Your task to perform on an android device: Open Wikipedia Image 0: 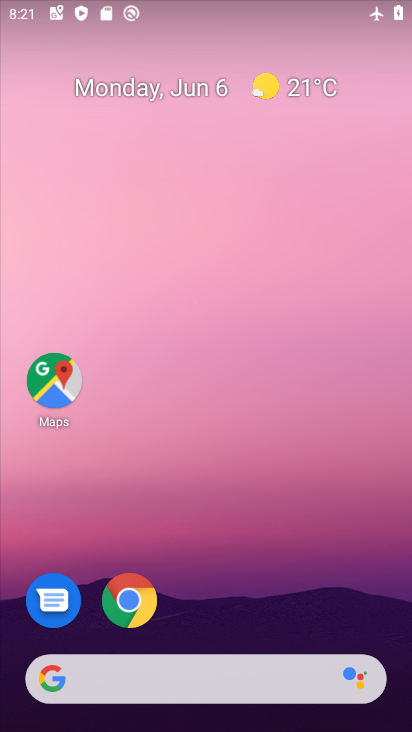
Step 0: click (129, 601)
Your task to perform on an android device: Open Wikipedia Image 1: 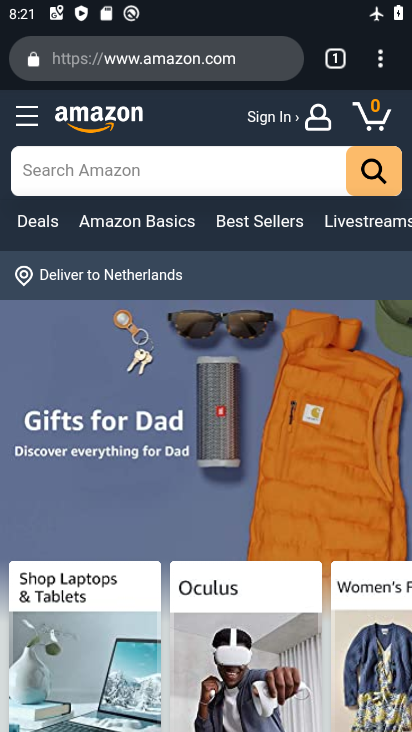
Step 1: click (248, 57)
Your task to perform on an android device: Open Wikipedia Image 2: 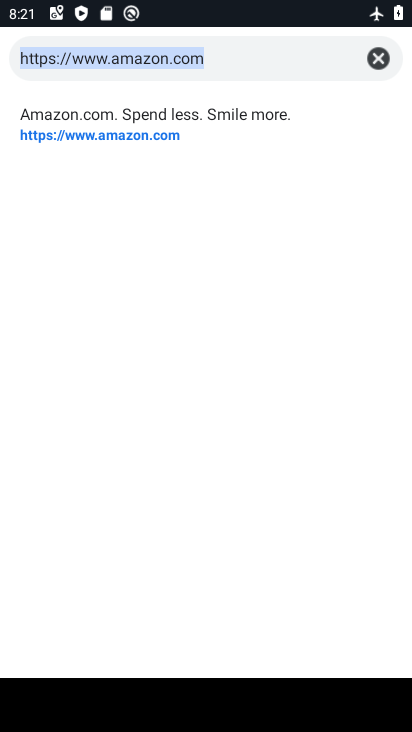
Step 2: click (374, 52)
Your task to perform on an android device: Open Wikipedia Image 3: 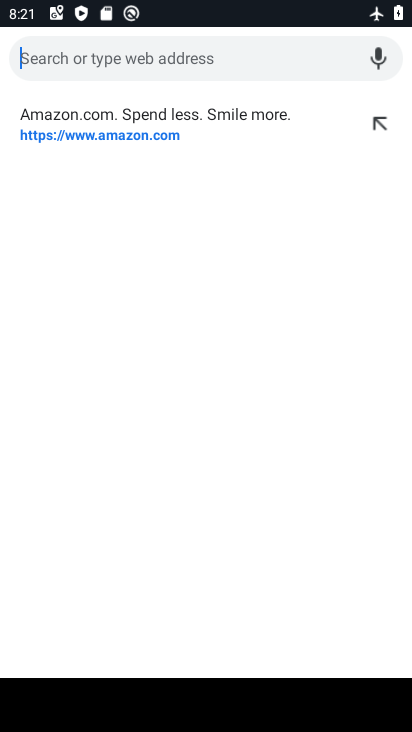
Step 3: type "wikipedia"
Your task to perform on an android device: Open Wikipedia Image 4: 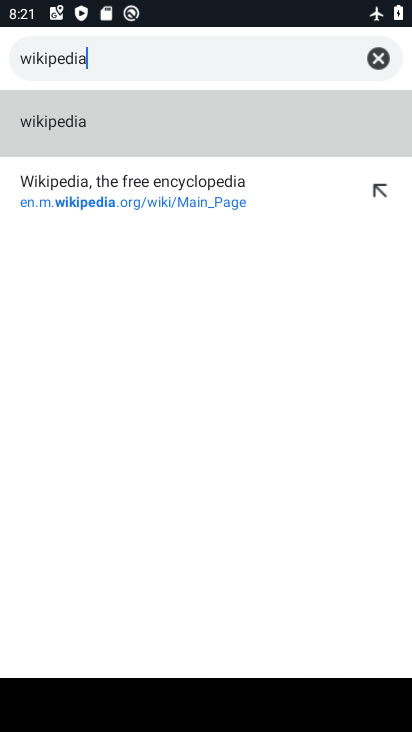
Step 4: click (66, 115)
Your task to perform on an android device: Open Wikipedia Image 5: 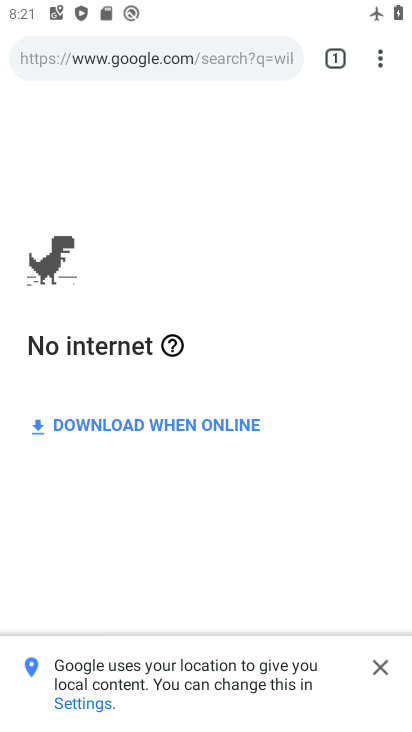
Step 5: task complete